Your task to perform on an android device: What's on my calendar today? Image 0: 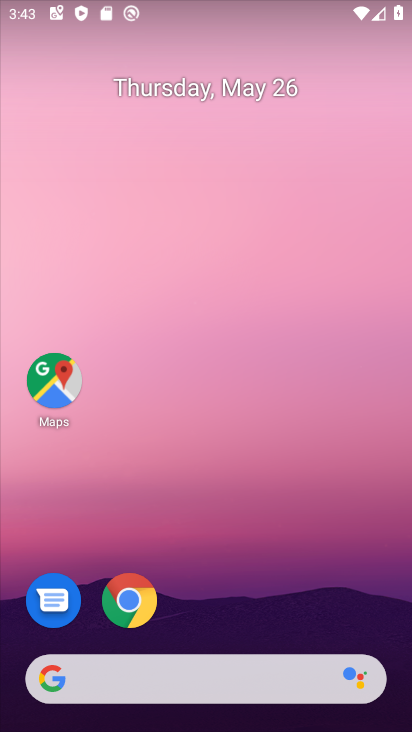
Step 0: drag from (173, 638) to (216, 273)
Your task to perform on an android device: What's on my calendar today? Image 1: 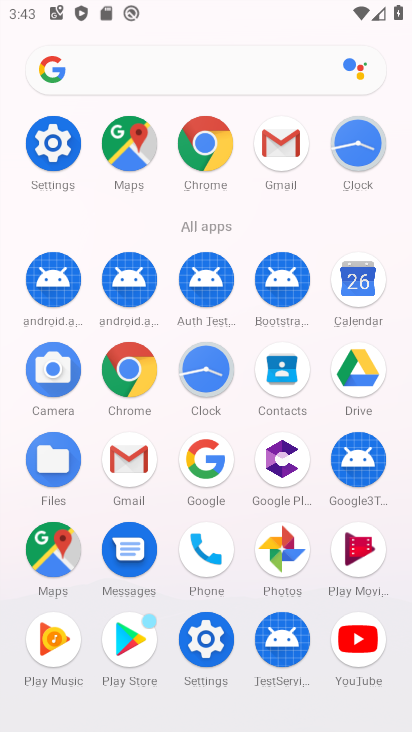
Step 1: click (371, 282)
Your task to perform on an android device: What's on my calendar today? Image 2: 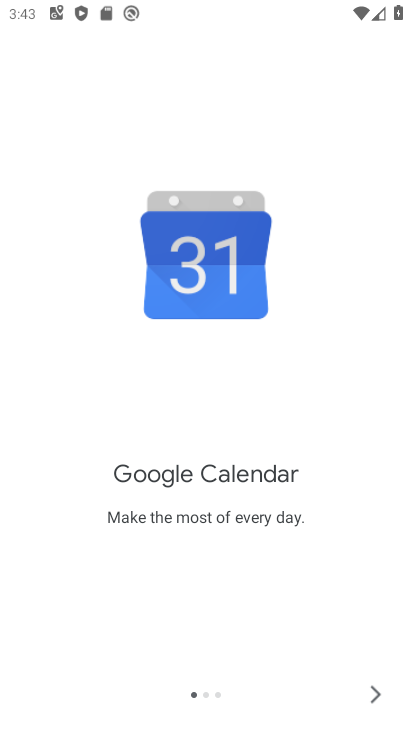
Step 2: click (387, 700)
Your task to perform on an android device: What's on my calendar today? Image 3: 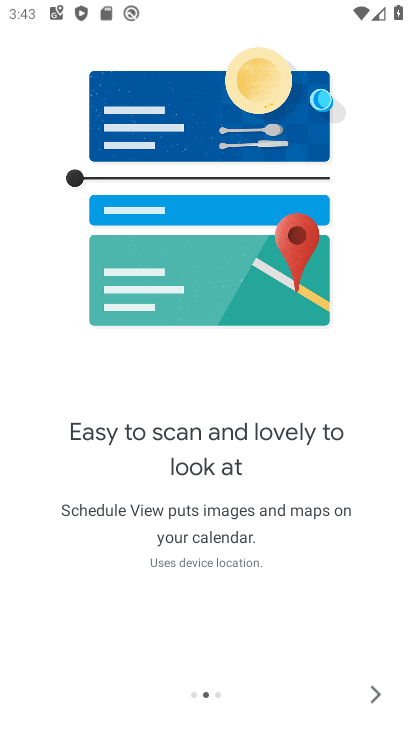
Step 3: click (373, 693)
Your task to perform on an android device: What's on my calendar today? Image 4: 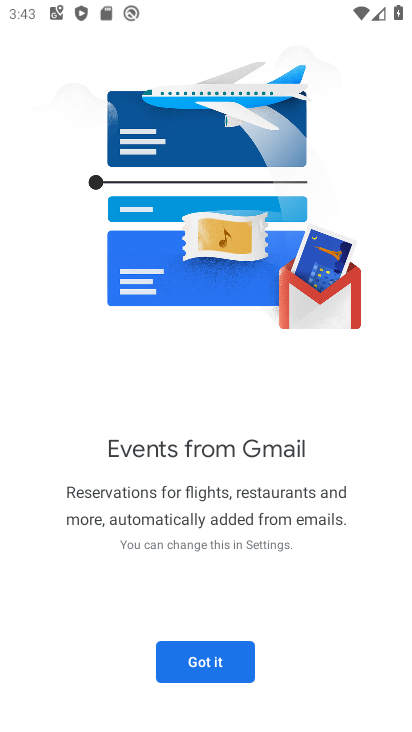
Step 4: click (206, 679)
Your task to perform on an android device: What's on my calendar today? Image 5: 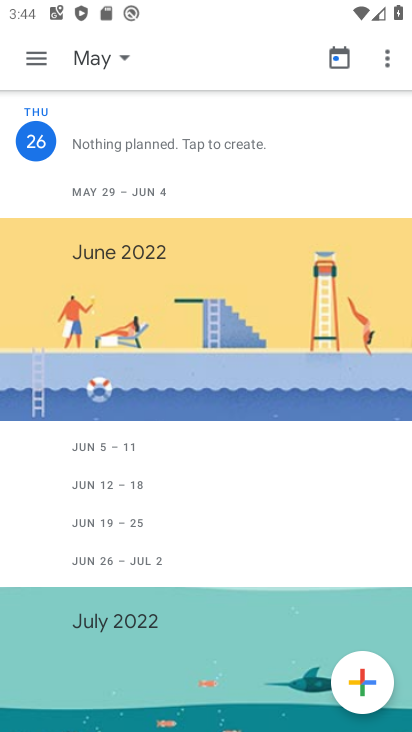
Step 5: click (32, 44)
Your task to perform on an android device: What's on my calendar today? Image 6: 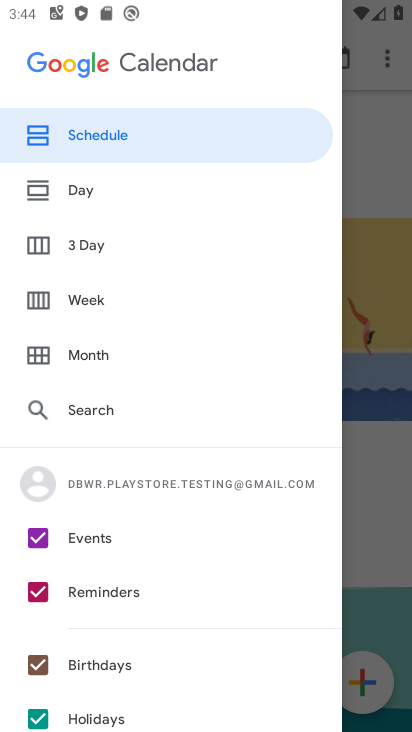
Step 6: click (101, 201)
Your task to perform on an android device: What's on my calendar today? Image 7: 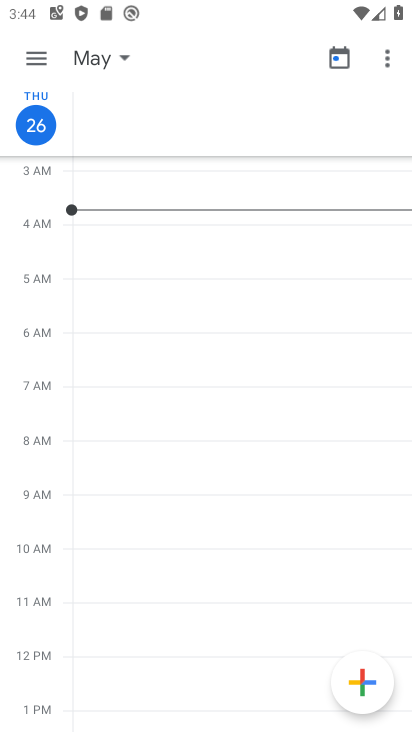
Step 7: task complete